Your task to perform on an android device: set an alarm Image 0: 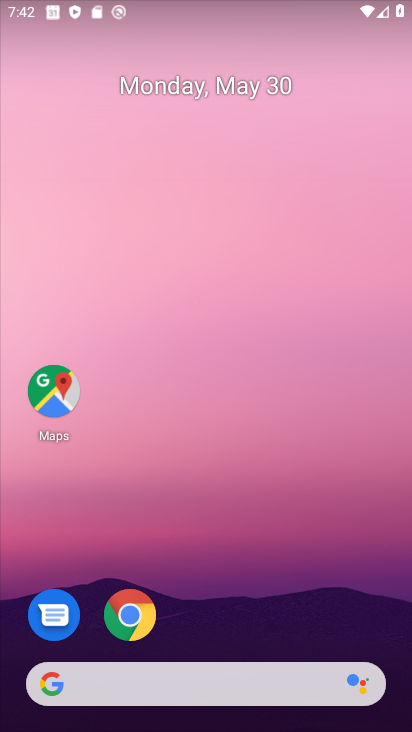
Step 0: drag from (230, 482) to (275, 20)
Your task to perform on an android device: set an alarm Image 1: 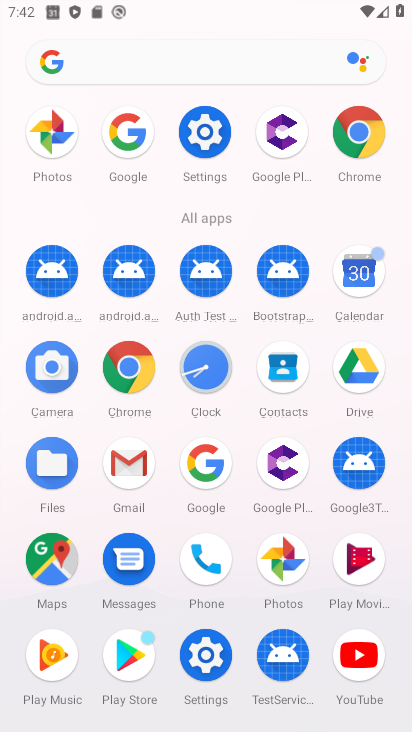
Step 1: click (202, 365)
Your task to perform on an android device: set an alarm Image 2: 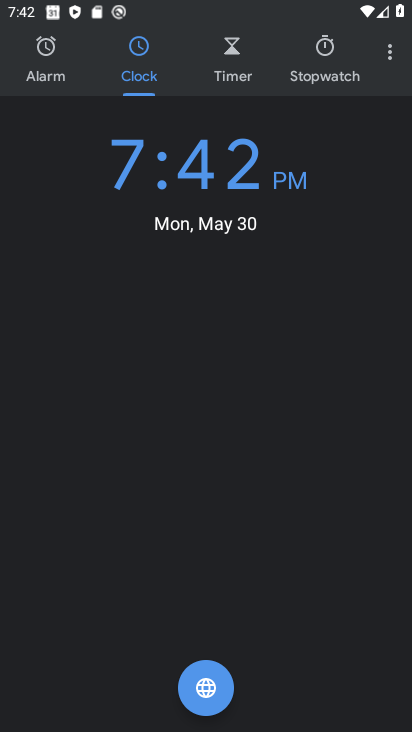
Step 2: click (238, 63)
Your task to perform on an android device: set an alarm Image 3: 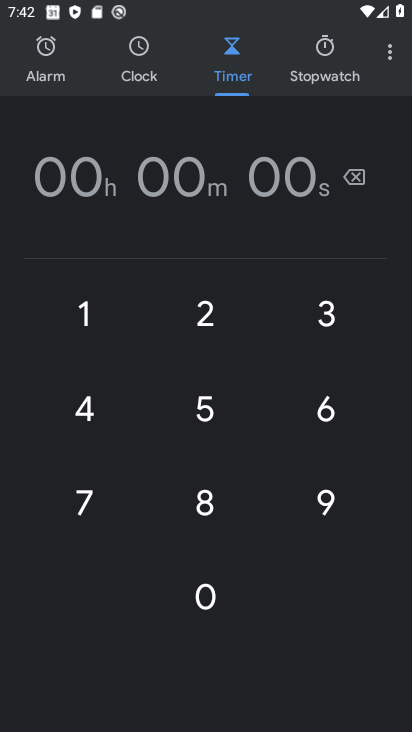
Step 3: click (50, 72)
Your task to perform on an android device: set an alarm Image 4: 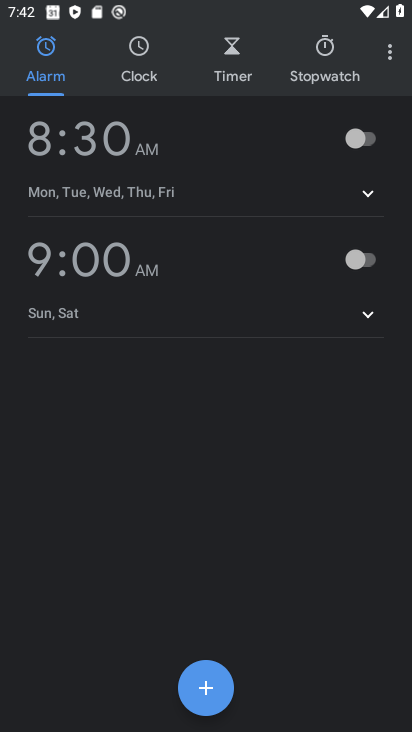
Step 4: click (367, 139)
Your task to perform on an android device: set an alarm Image 5: 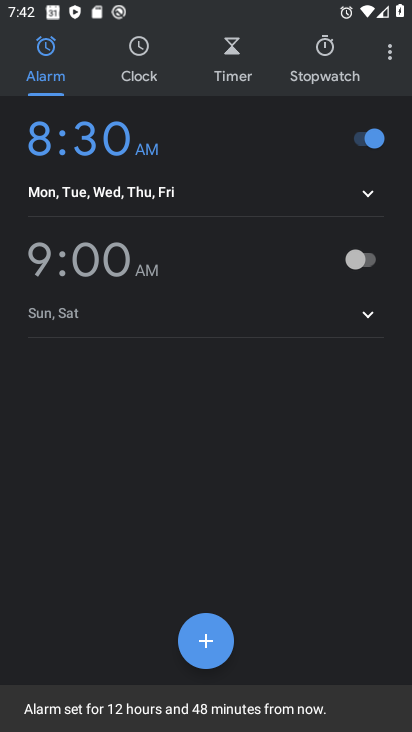
Step 5: task complete